Your task to perform on an android device: What's the weather going to be this weekend? Image 0: 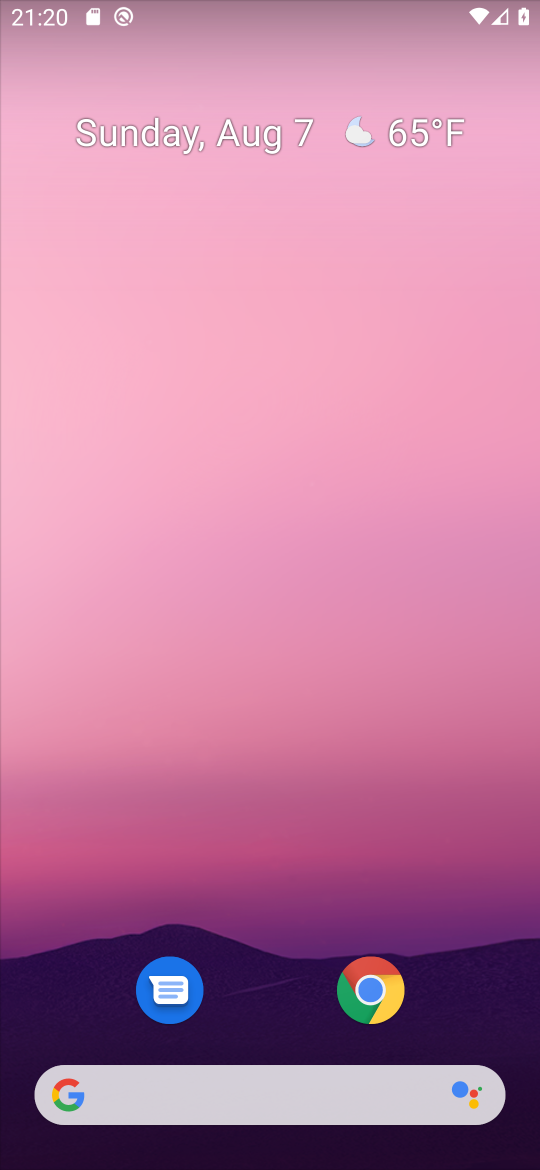
Step 0: click (301, 1064)
Your task to perform on an android device: What's the weather going to be this weekend? Image 1: 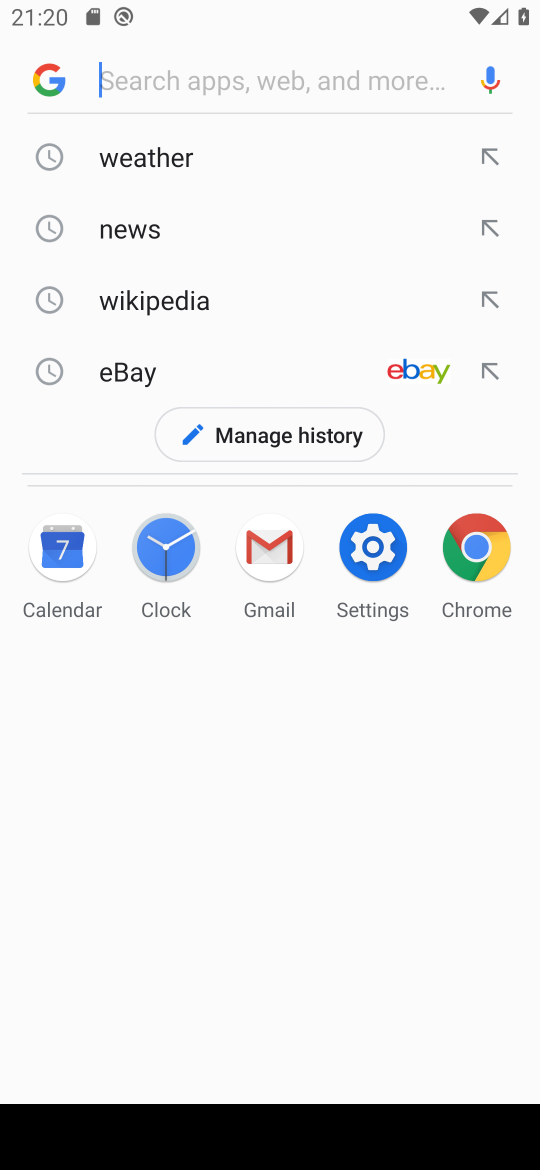
Step 1: click (182, 152)
Your task to perform on an android device: What's the weather going to be this weekend? Image 2: 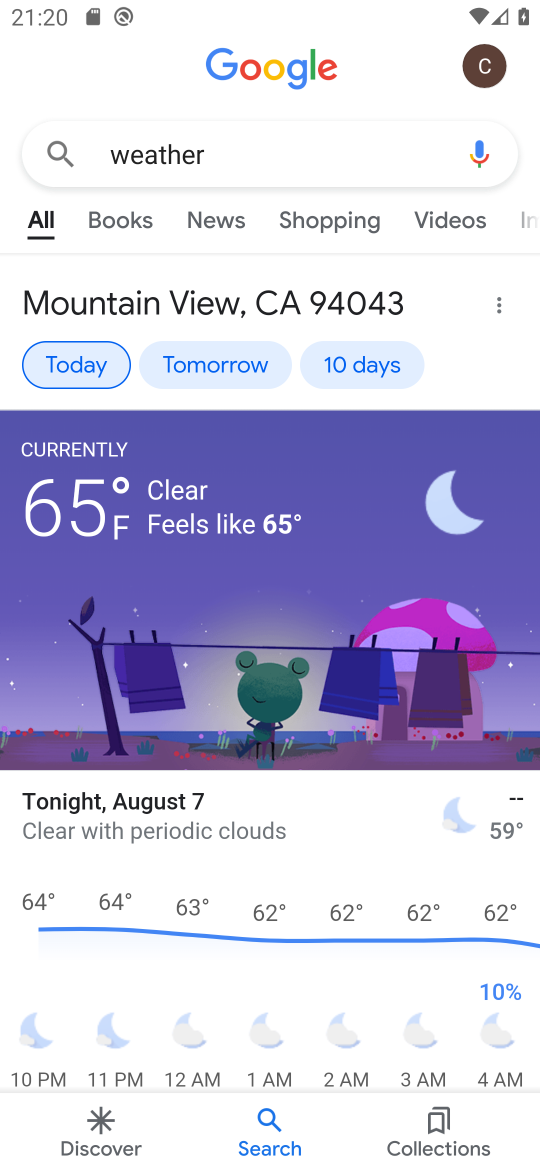
Step 2: click (373, 358)
Your task to perform on an android device: What's the weather going to be this weekend? Image 3: 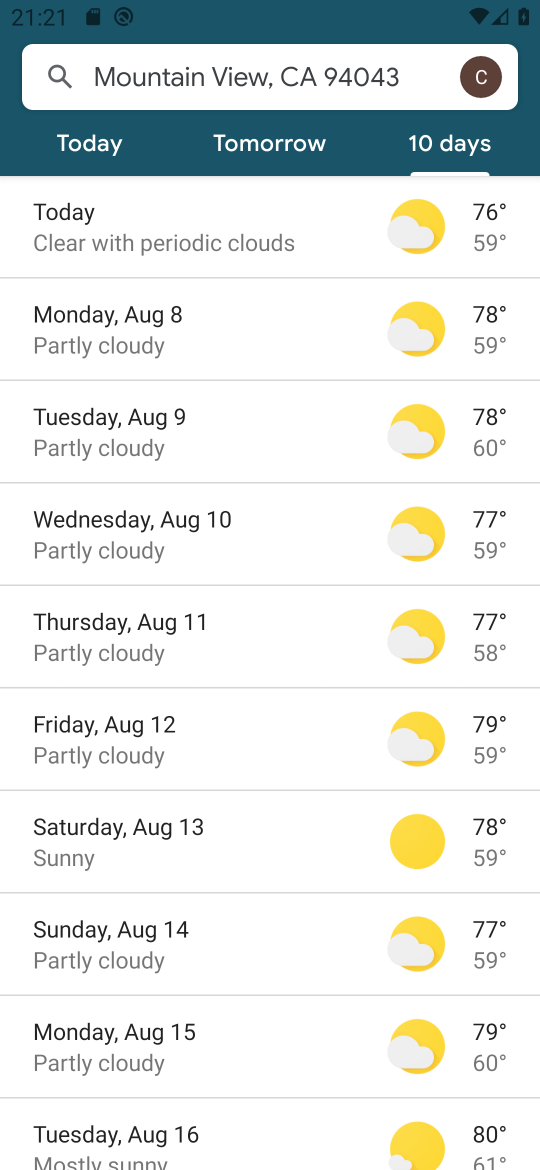
Step 3: click (245, 847)
Your task to perform on an android device: What's the weather going to be this weekend? Image 4: 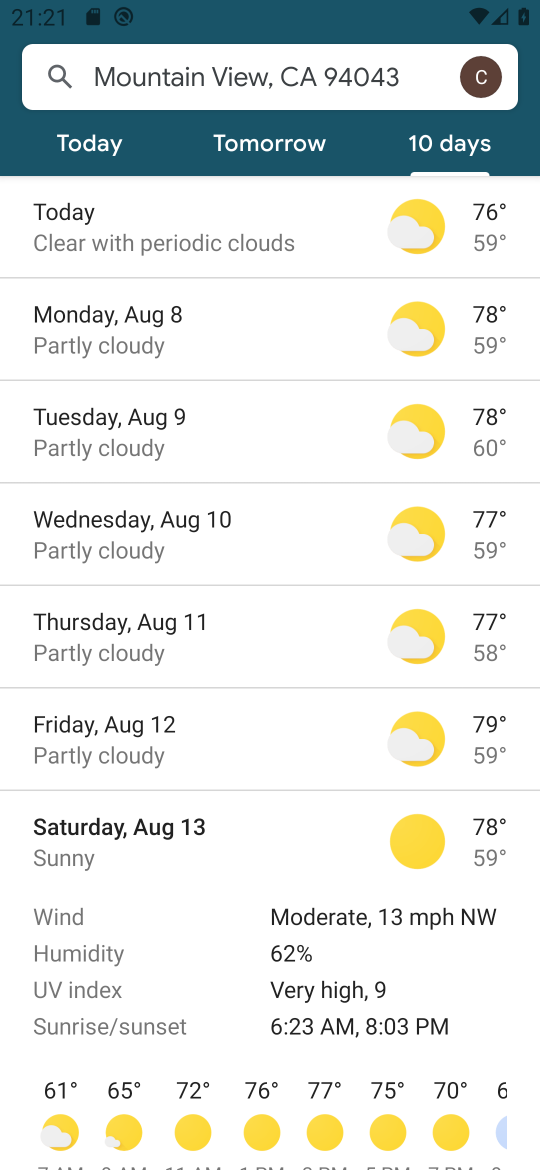
Step 4: task complete